Your task to perform on an android device: Open maps Image 0: 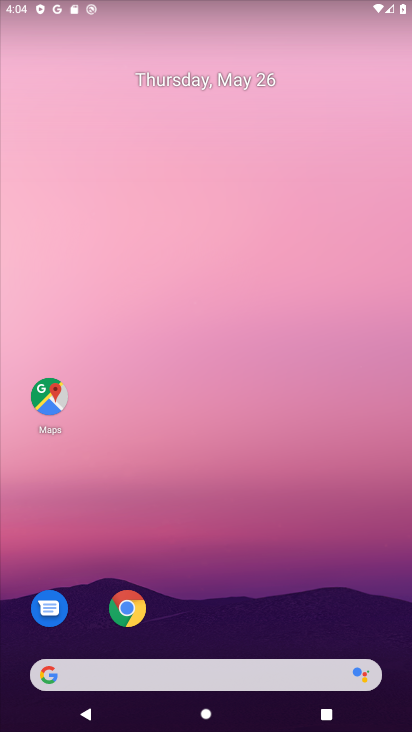
Step 0: drag from (256, 692) to (227, 155)
Your task to perform on an android device: Open maps Image 1: 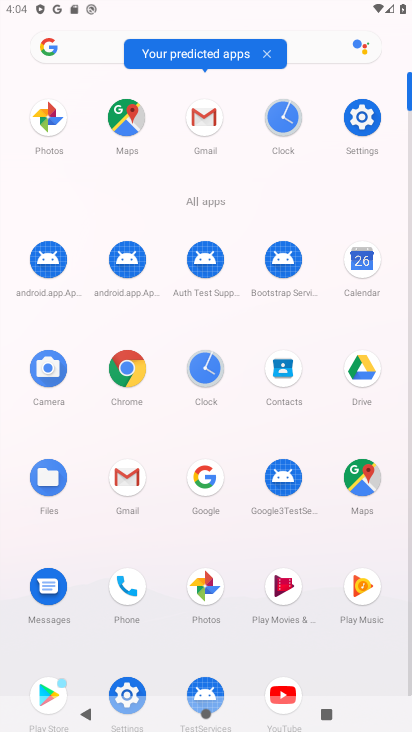
Step 1: click (136, 108)
Your task to perform on an android device: Open maps Image 2: 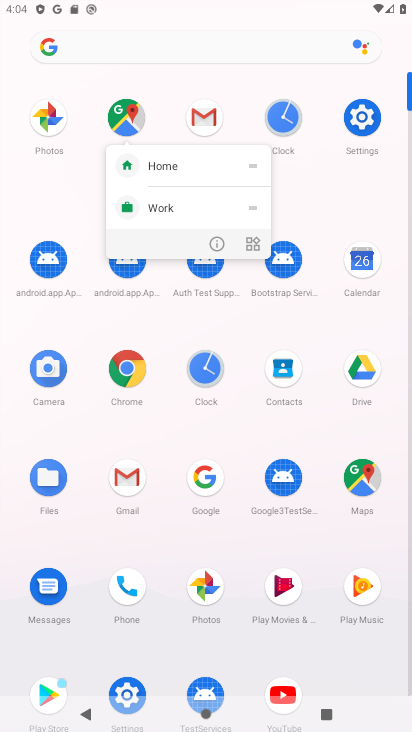
Step 2: click (126, 107)
Your task to perform on an android device: Open maps Image 3: 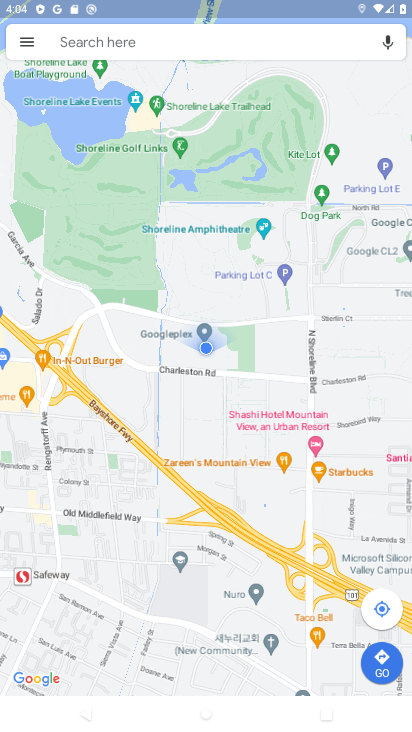
Step 3: task complete